Your task to perform on an android device: Open the web browser Image 0: 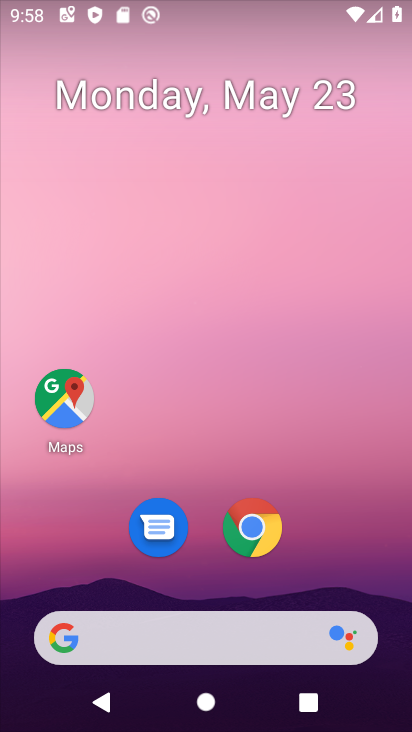
Step 0: click (261, 534)
Your task to perform on an android device: Open the web browser Image 1: 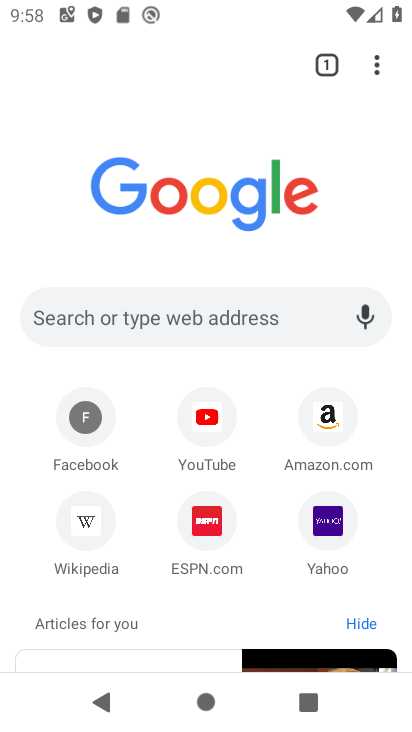
Step 1: task complete